Your task to perform on an android device: Search for seafood restaurants on Google Maps Image 0: 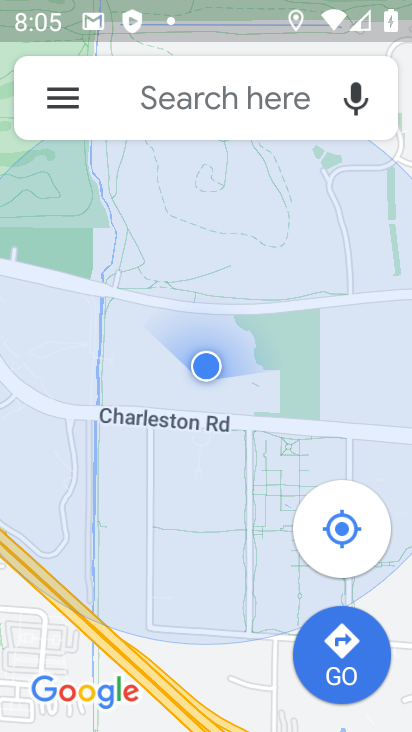
Step 0: press back button
Your task to perform on an android device: Search for seafood restaurants on Google Maps Image 1: 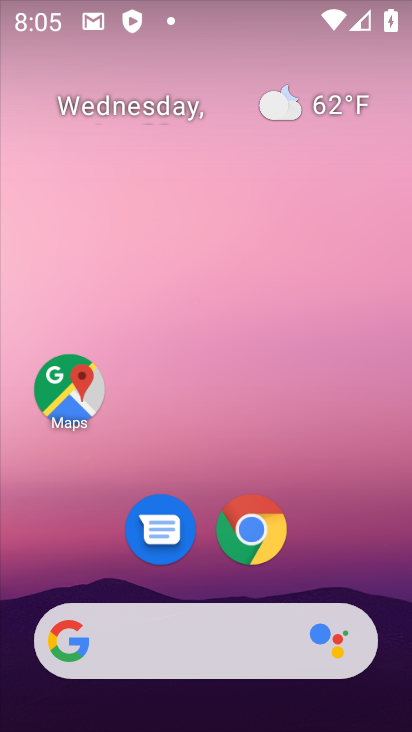
Step 1: click (51, 381)
Your task to perform on an android device: Search for seafood restaurants on Google Maps Image 2: 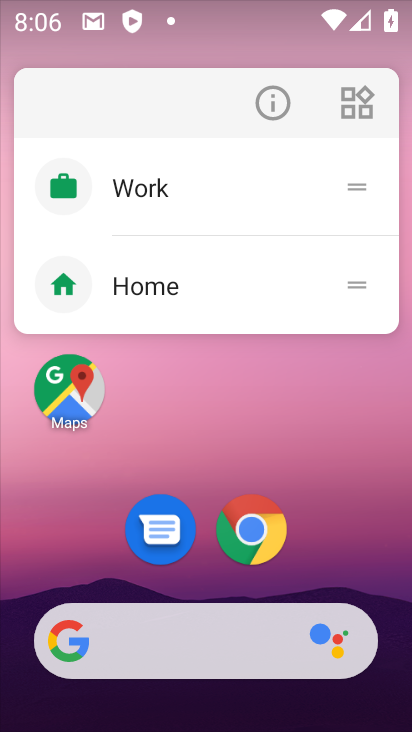
Step 2: click (71, 397)
Your task to perform on an android device: Search for seafood restaurants on Google Maps Image 3: 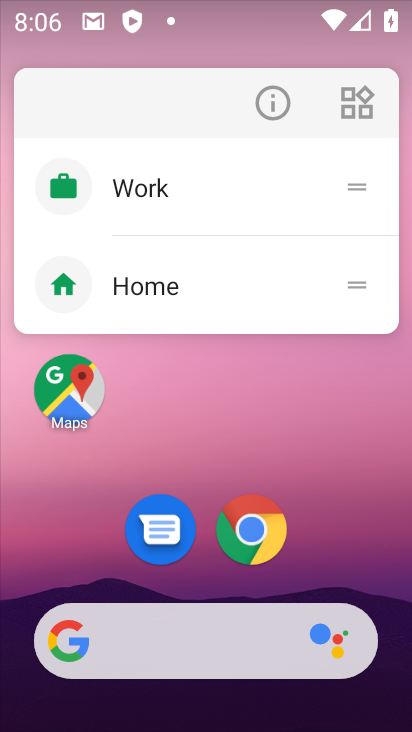
Step 3: click (65, 398)
Your task to perform on an android device: Search for seafood restaurants on Google Maps Image 4: 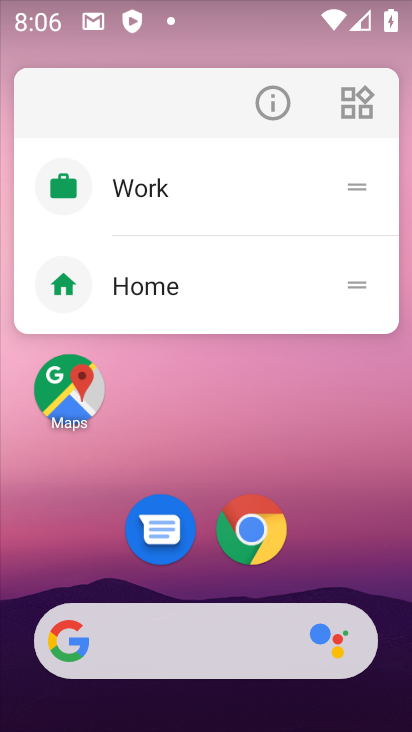
Step 4: click (277, 111)
Your task to perform on an android device: Search for seafood restaurants on Google Maps Image 5: 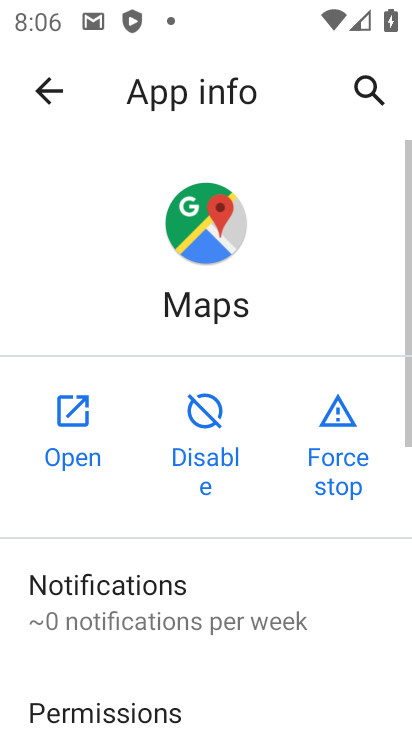
Step 5: click (88, 414)
Your task to perform on an android device: Search for seafood restaurants on Google Maps Image 6: 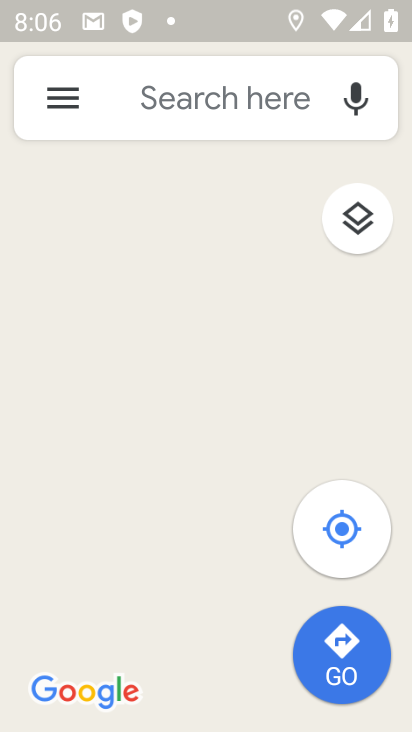
Step 6: click (189, 91)
Your task to perform on an android device: Search for seafood restaurants on Google Maps Image 7: 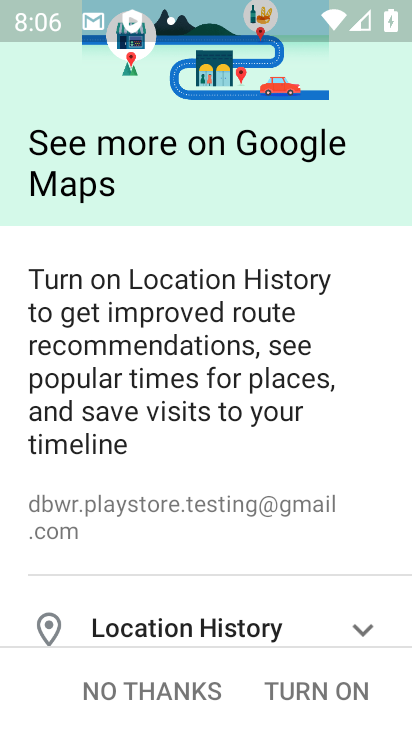
Step 7: type "seafood restaurants"
Your task to perform on an android device: Search for seafood restaurants on Google Maps Image 8: 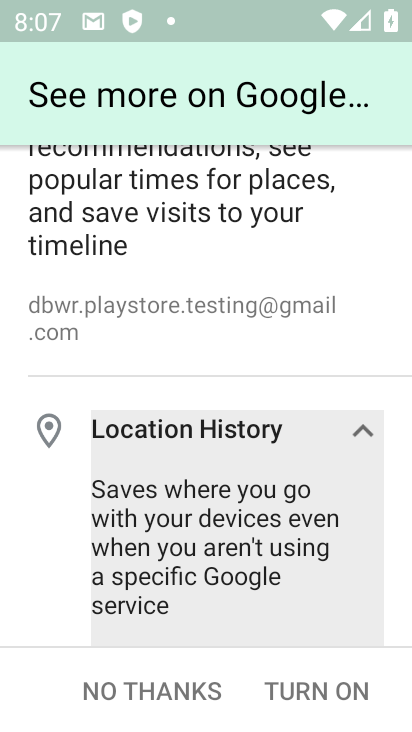
Step 8: task complete